Your task to perform on an android device: open device folders in google photos Image 0: 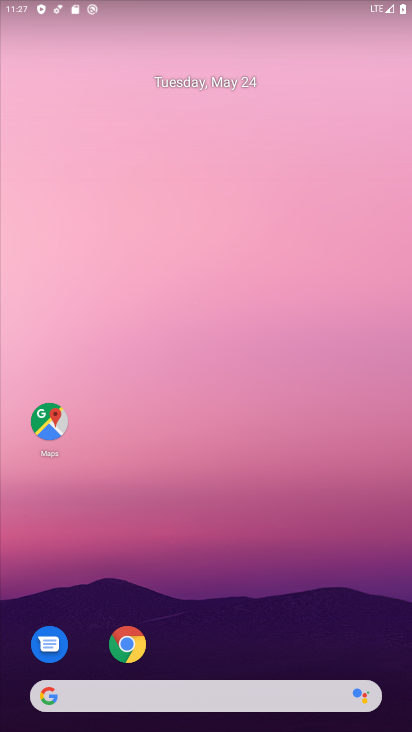
Step 0: drag from (242, 541) to (190, 85)
Your task to perform on an android device: open device folders in google photos Image 1: 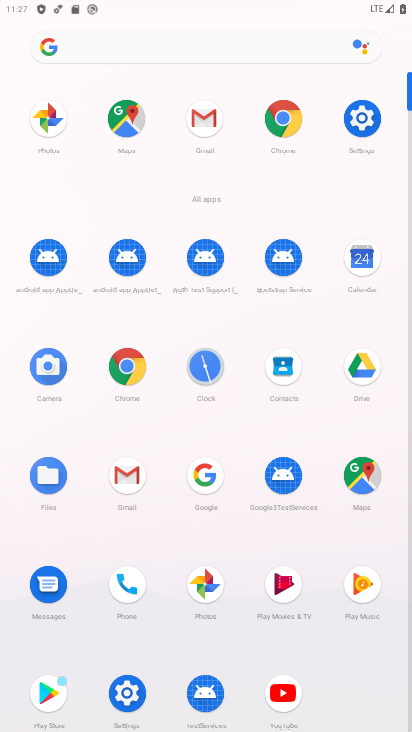
Step 1: click (44, 120)
Your task to perform on an android device: open device folders in google photos Image 2: 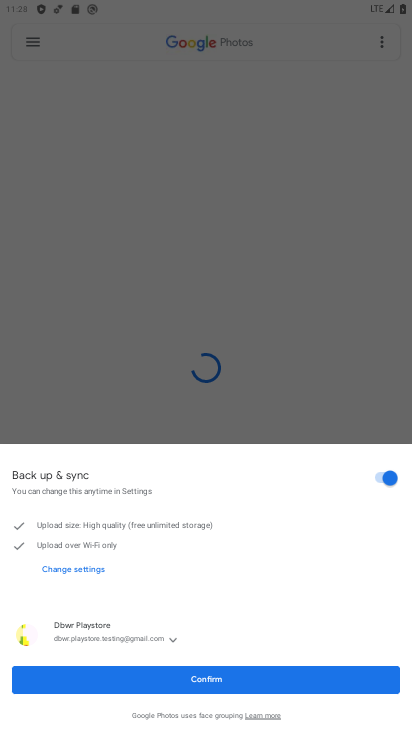
Step 2: click (191, 682)
Your task to perform on an android device: open device folders in google photos Image 3: 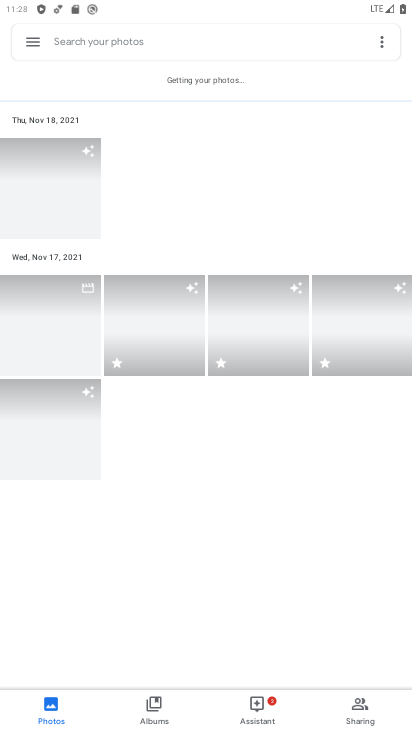
Step 3: click (28, 39)
Your task to perform on an android device: open device folders in google photos Image 4: 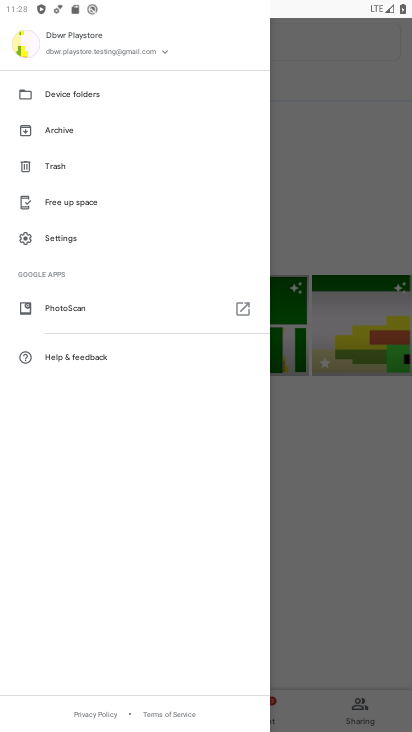
Step 4: click (78, 94)
Your task to perform on an android device: open device folders in google photos Image 5: 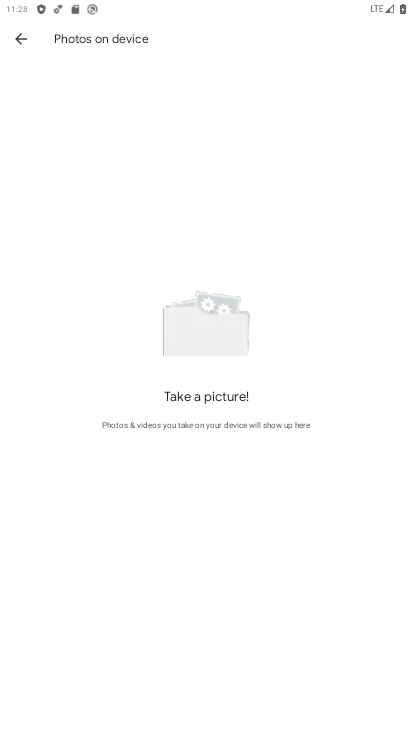
Step 5: task complete